Your task to perform on an android device: Clear the cart on target.com. Search for "asus zenbook" on target.com, select the first entry, and add it to the cart. Image 0: 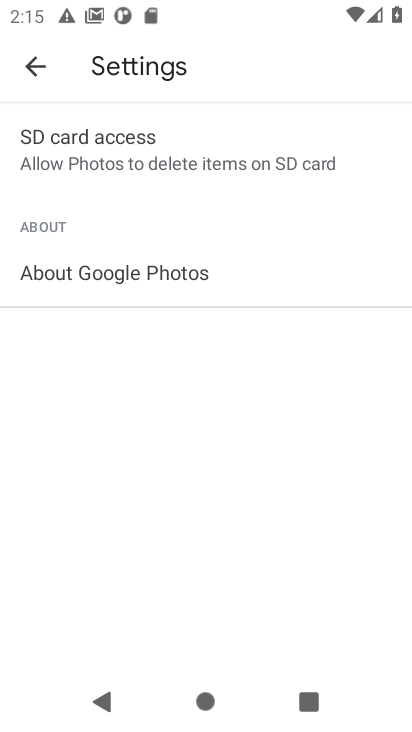
Step 0: press home button
Your task to perform on an android device: Clear the cart on target.com. Search for "asus zenbook" on target.com, select the first entry, and add it to the cart. Image 1: 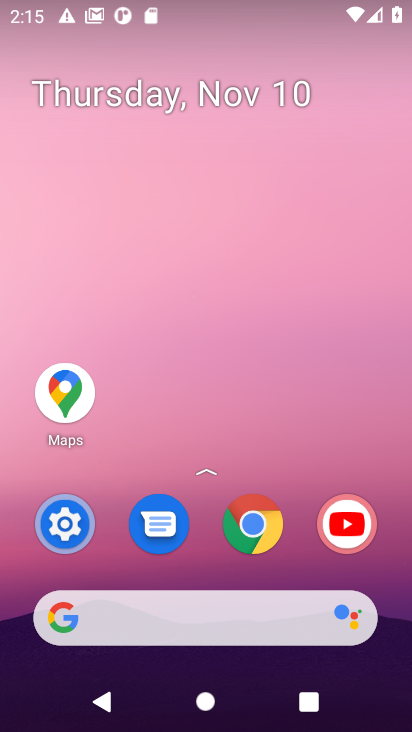
Step 1: click (260, 516)
Your task to perform on an android device: Clear the cart on target.com. Search for "asus zenbook" on target.com, select the first entry, and add it to the cart. Image 2: 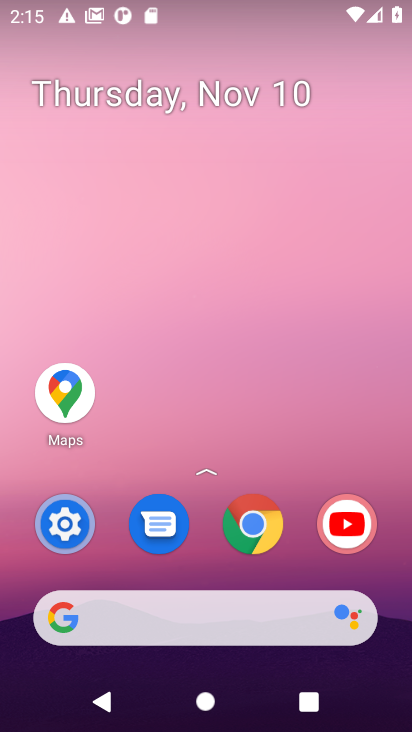
Step 2: click (260, 516)
Your task to perform on an android device: Clear the cart on target.com. Search for "asus zenbook" on target.com, select the first entry, and add it to the cart. Image 3: 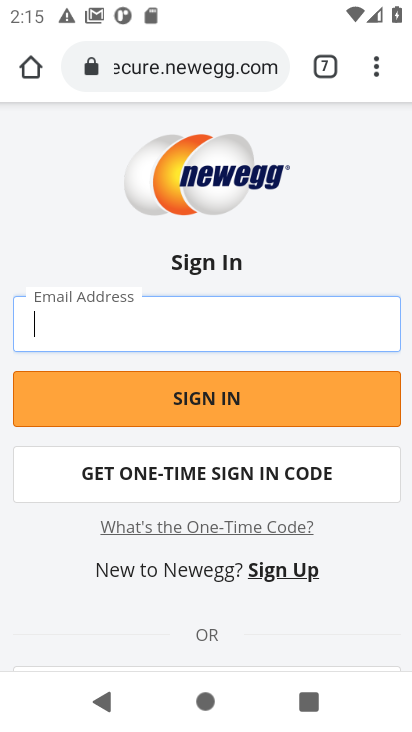
Step 3: click (330, 66)
Your task to perform on an android device: Clear the cart on target.com. Search for "asus zenbook" on target.com, select the first entry, and add it to the cart. Image 4: 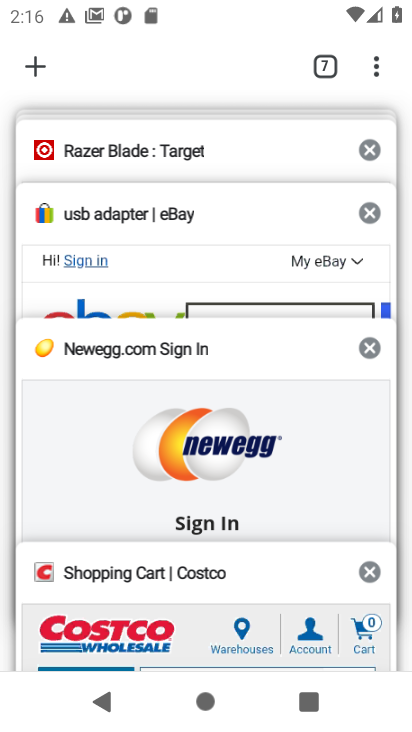
Step 4: click (230, 148)
Your task to perform on an android device: Clear the cart on target.com. Search for "asus zenbook" on target.com, select the first entry, and add it to the cart. Image 5: 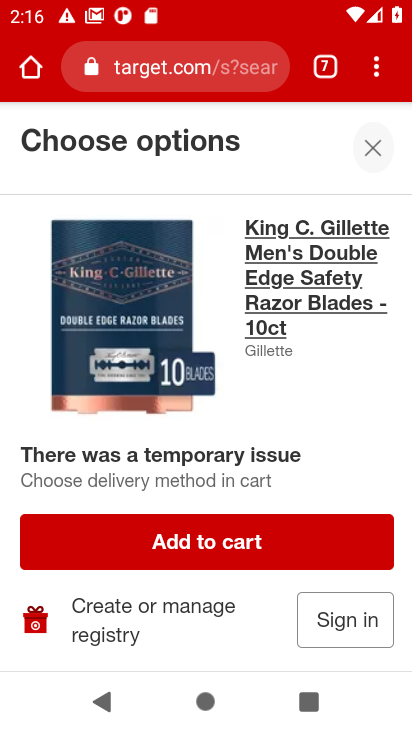
Step 5: click (368, 160)
Your task to perform on an android device: Clear the cart on target.com. Search for "asus zenbook" on target.com, select the first entry, and add it to the cart. Image 6: 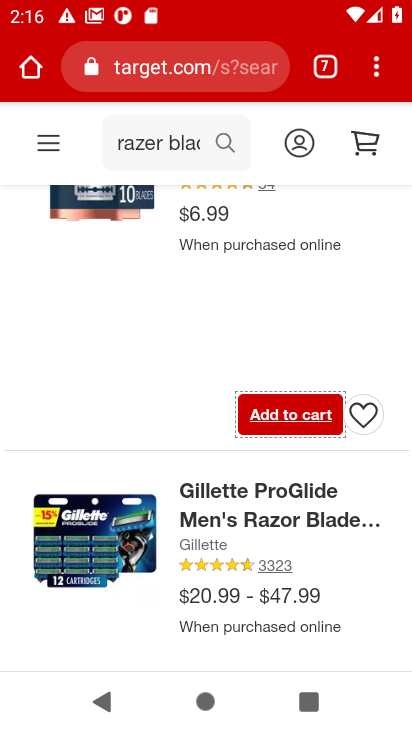
Step 6: click (175, 146)
Your task to perform on an android device: Clear the cart on target.com. Search for "asus zenbook" on target.com, select the first entry, and add it to the cart. Image 7: 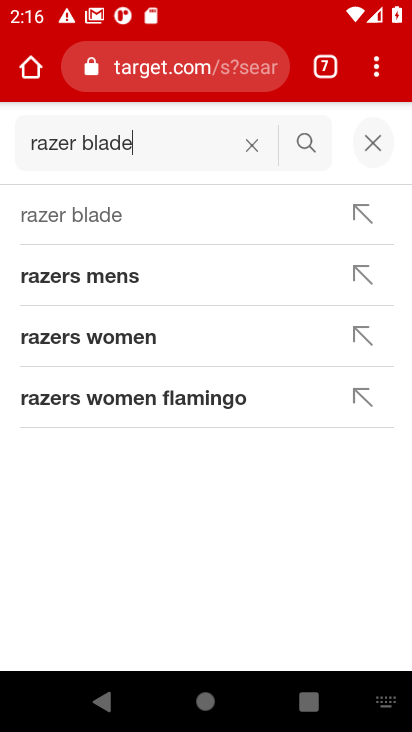
Step 7: click (251, 145)
Your task to perform on an android device: Clear the cart on target.com. Search for "asus zenbook" on target.com, select the first entry, and add it to the cart. Image 8: 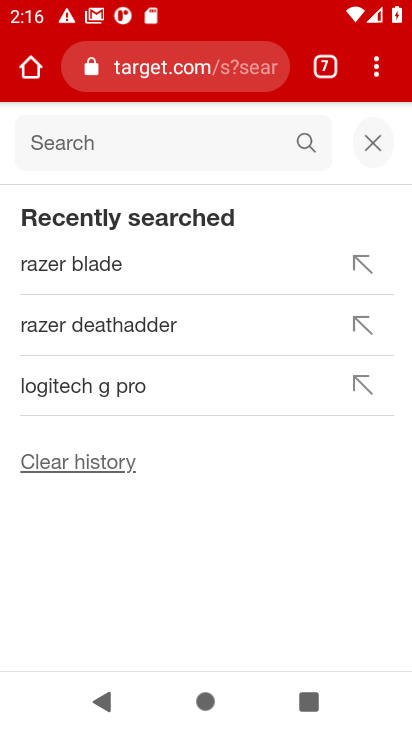
Step 8: type "asus zenbook"
Your task to perform on an android device: Clear the cart on target.com. Search for "asus zenbook" on target.com, select the first entry, and add it to the cart. Image 9: 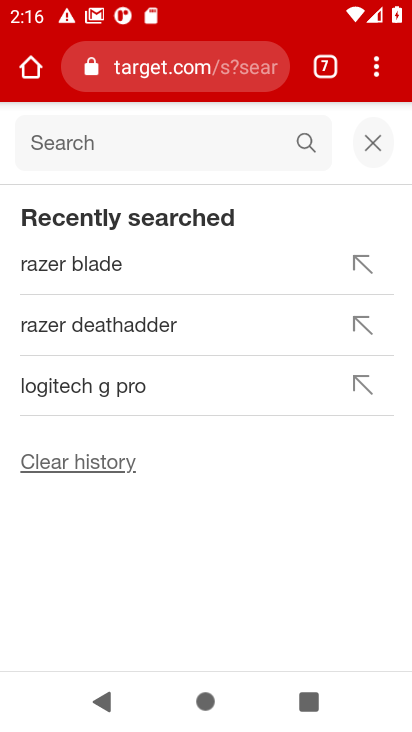
Step 9: click (163, 146)
Your task to perform on an android device: Clear the cart on target.com. Search for "asus zenbook" on target.com, select the first entry, and add it to the cart. Image 10: 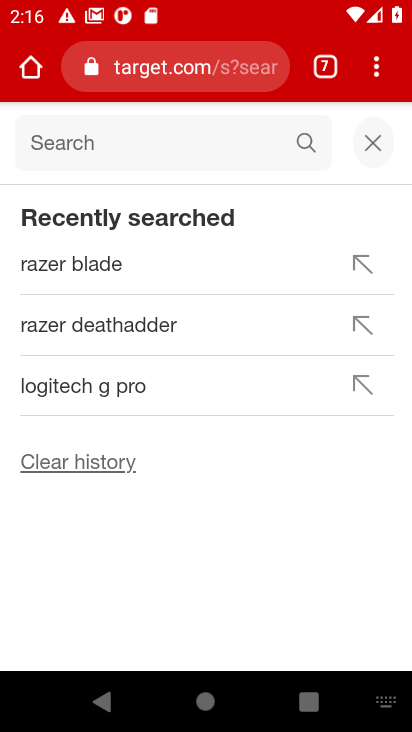
Step 10: type "asus zenbook"
Your task to perform on an android device: Clear the cart on target.com. Search for "asus zenbook" on target.com, select the first entry, and add it to the cart. Image 11: 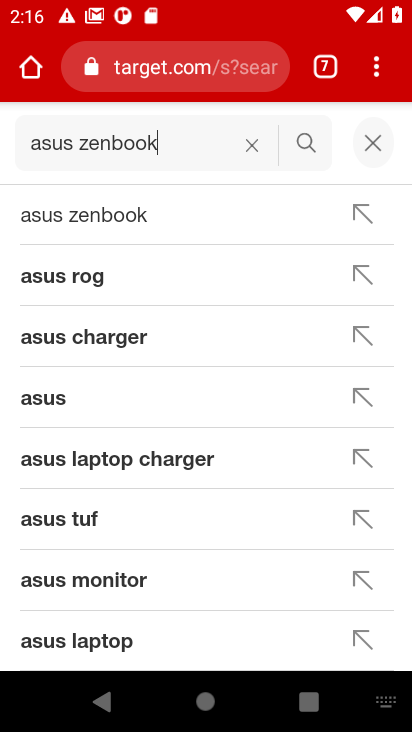
Step 11: click (131, 218)
Your task to perform on an android device: Clear the cart on target.com. Search for "asus zenbook" on target.com, select the first entry, and add it to the cart. Image 12: 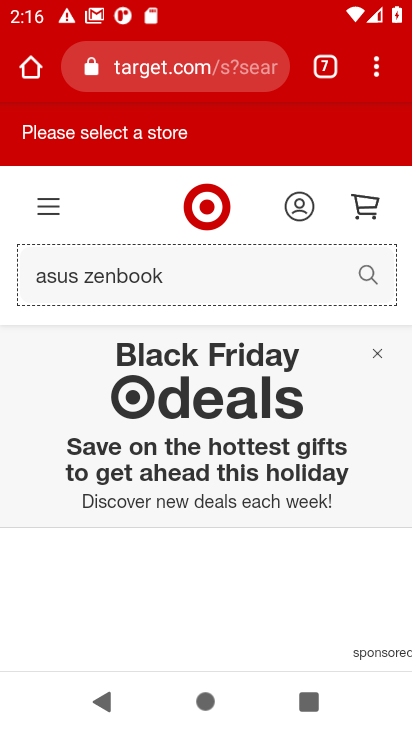
Step 12: click (131, 218)
Your task to perform on an android device: Clear the cart on target.com. Search for "asus zenbook" on target.com, select the first entry, and add it to the cart. Image 13: 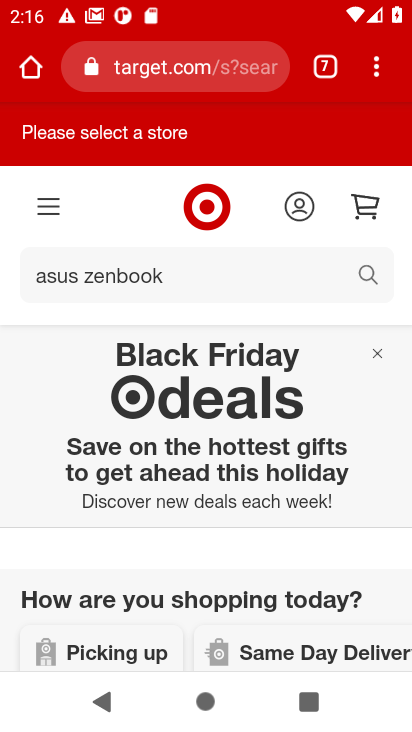
Step 13: drag from (208, 569) to (124, 177)
Your task to perform on an android device: Clear the cart on target.com. Search for "asus zenbook" on target.com, select the first entry, and add it to the cart. Image 14: 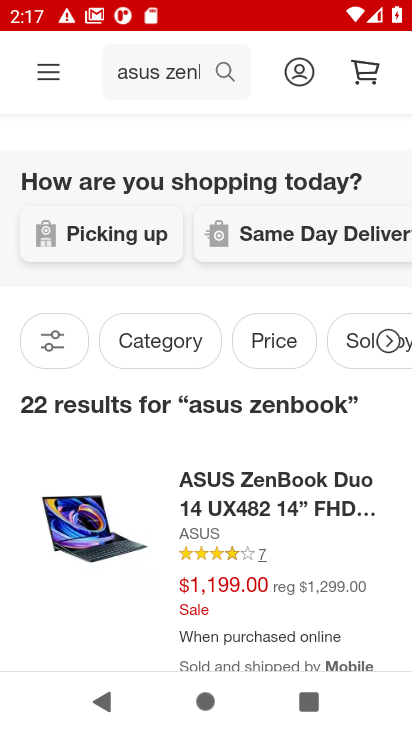
Step 14: drag from (138, 577) to (88, 153)
Your task to perform on an android device: Clear the cart on target.com. Search for "asus zenbook" on target.com, select the first entry, and add it to the cart. Image 15: 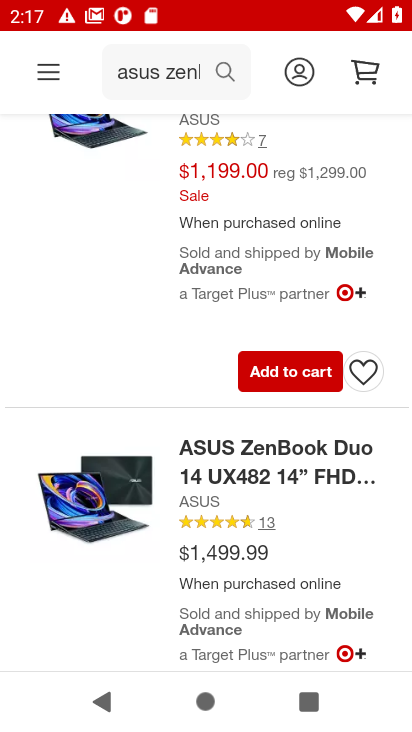
Step 15: click (272, 378)
Your task to perform on an android device: Clear the cart on target.com. Search for "asus zenbook" on target.com, select the first entry, and add it to the cart. Image 16: 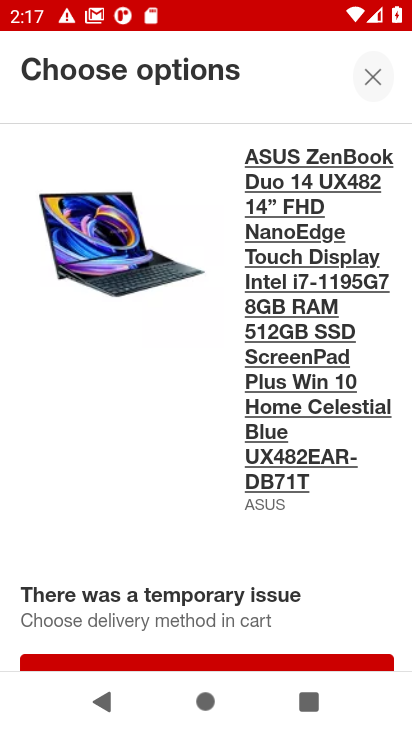
Step 16: task complete